Your task to perform on an android device: Search for pizza restaurants on Maps Image 0: 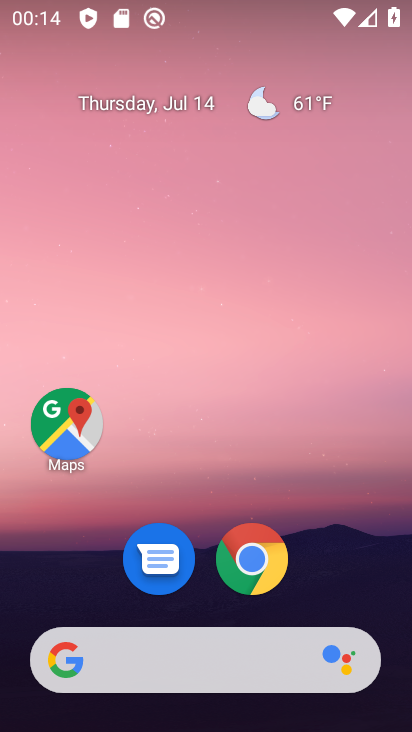
Step 0: click (74, 416)
Your task to perform on an android device: Search for pizza restaurants on Maps Image 1: 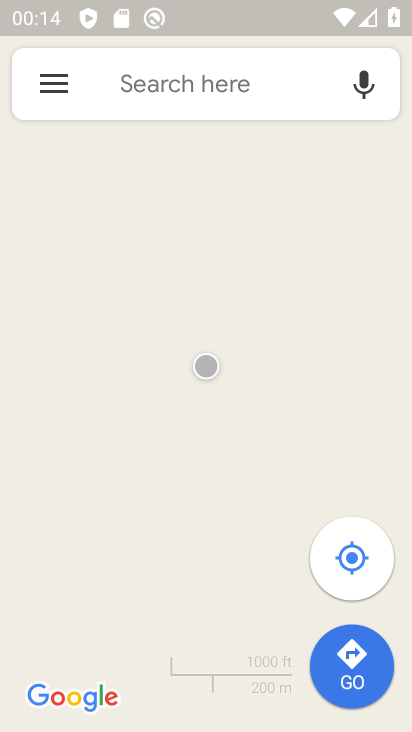
Step 1: click (200, 81)
Your task to perform on an android device: Search for pizza restaurants on Maps Image 2: 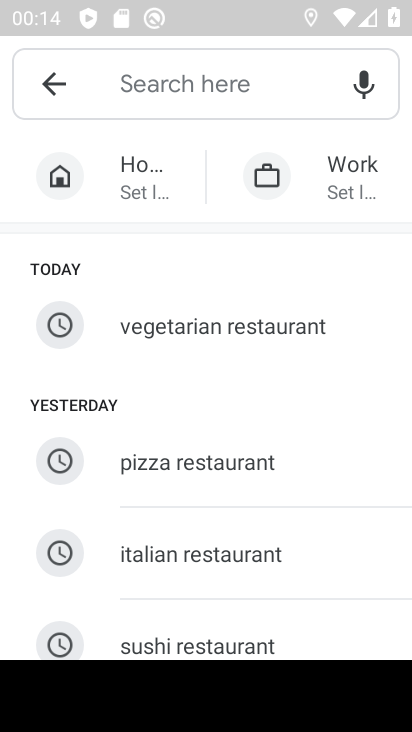
Step 2: click (255, 462)
Your task to perform on an android device: Search for pizza restaurants on Maps Image 3: 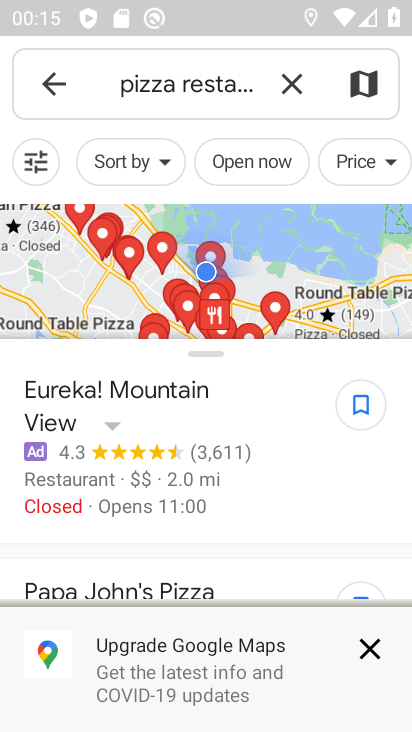
Step 3: task complete